Your task to perform on an android device: Is it going to rain today? Image 0: 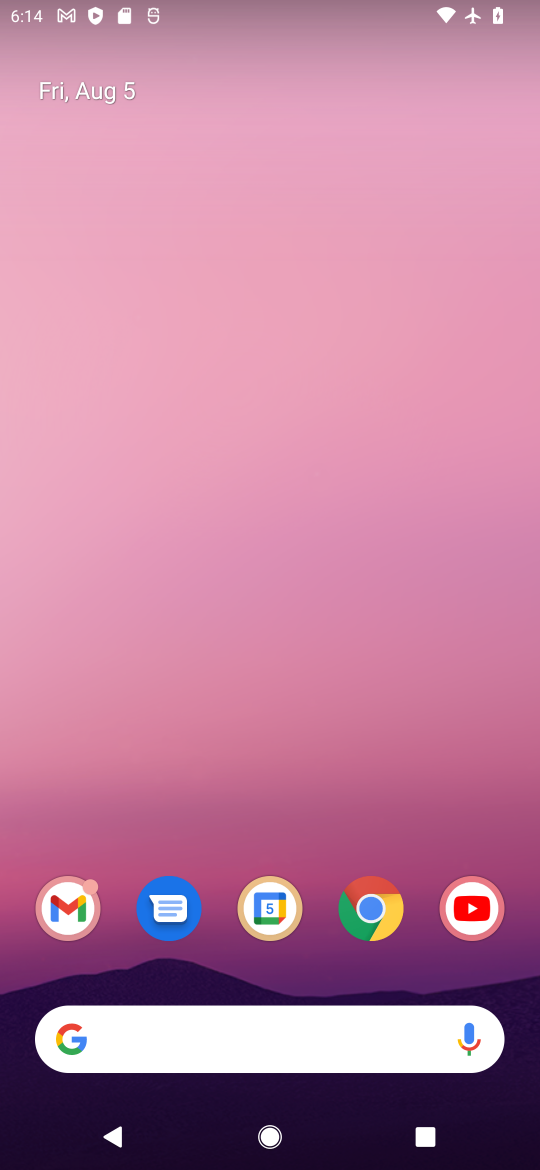
Step 0: click (140, 1034)
Your task to perform on an android device: Is it going to rain today? Image 1: 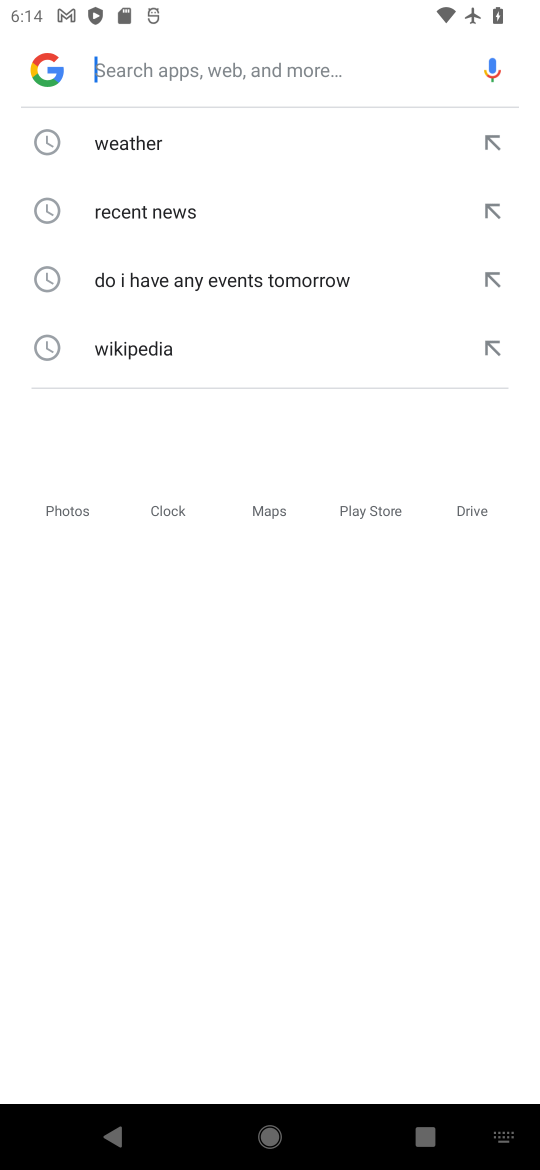
Step 1: click (147, 153)
Your task to perform on an android device: Is it going to rain today? Image 2: 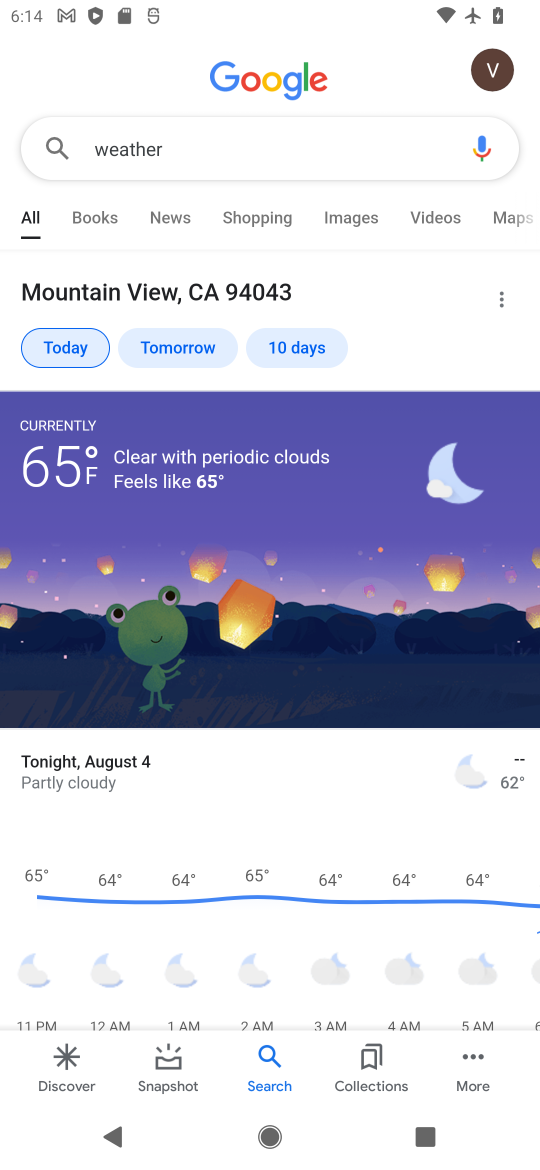
Step 2: task complete